Your task to perform on an android device: Open Chrome and go to settings Image 0: 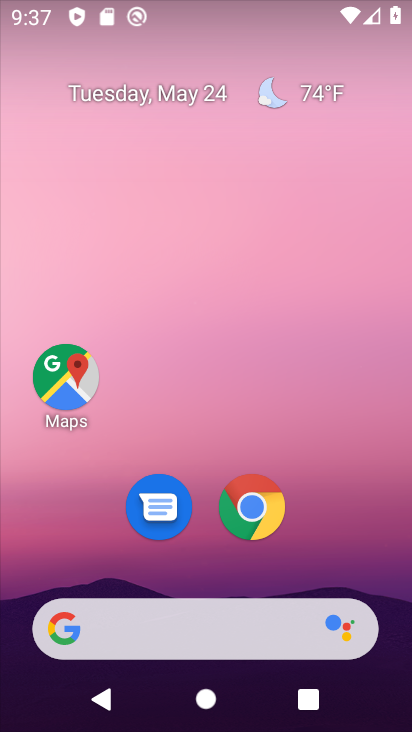
Step 0: click (249, 506)
Your task to perform on an android device: Open Chrome and go to settings Image 1: 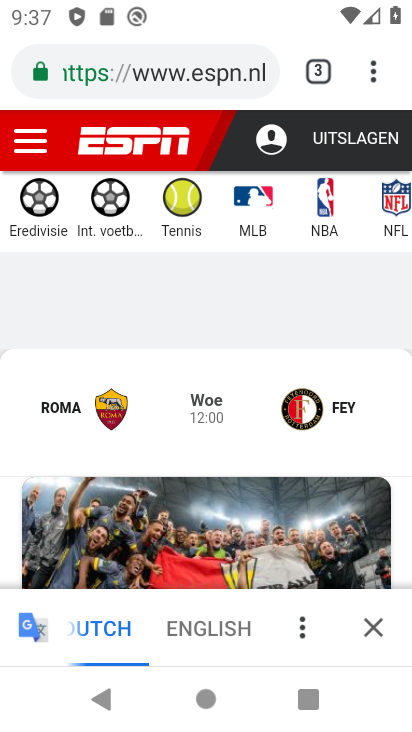
Step 1: click (373, 72)
Your task to perform on an android device: Open Chrome and go to settings Image 2: 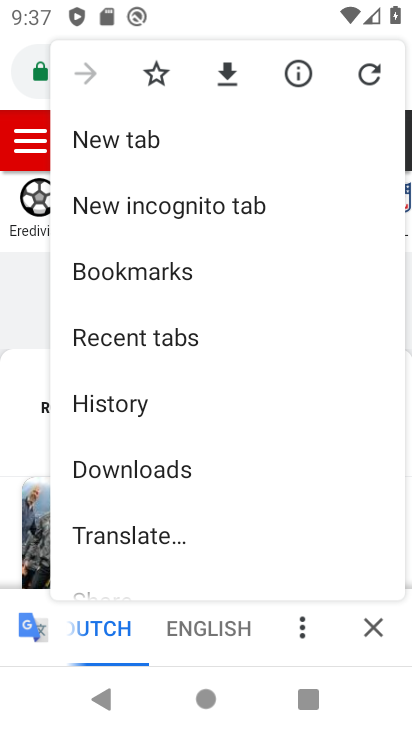
Step 2: drag from (127, 561) to (138, 210)
Your task to perform on an android device: Open Chrome and go to settings Image 3: 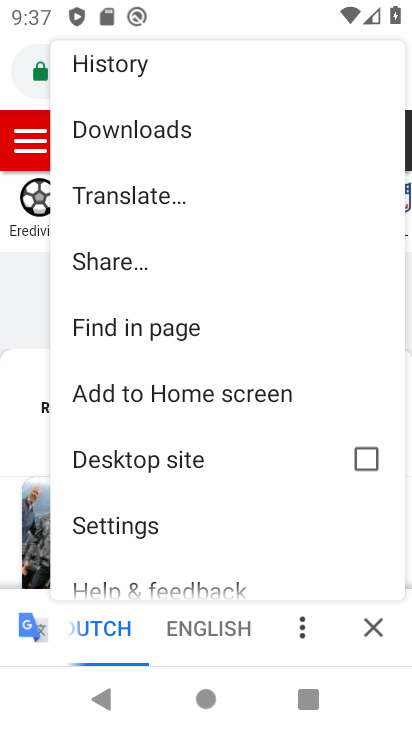
Step 3: drag from (149, 520) to (147, 228)
Your task to perform on an android device: Open Chrome and go to settings Image 4: 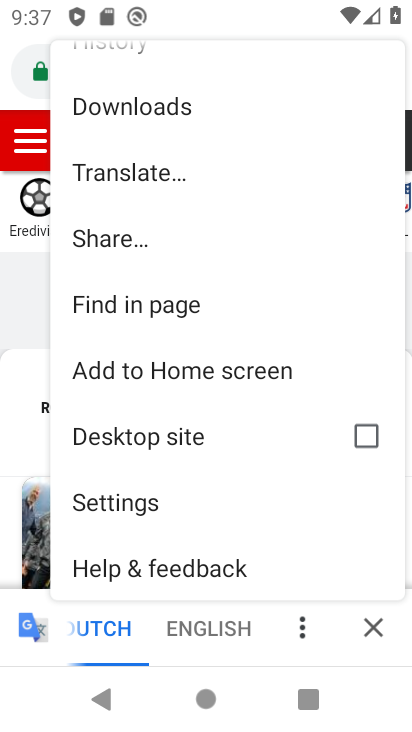
Step 4: click (129, 501)
Your task to perform on an android device: Open Chrome and go to settings Image 5: 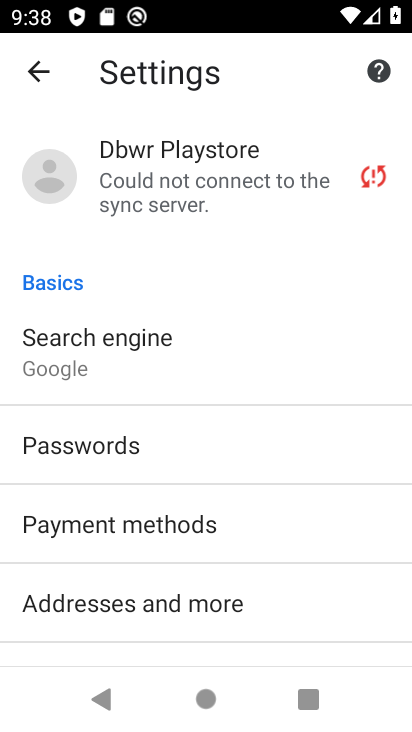
Step 5: task complete